Your task to perform on an android device: Open Google Image 0: 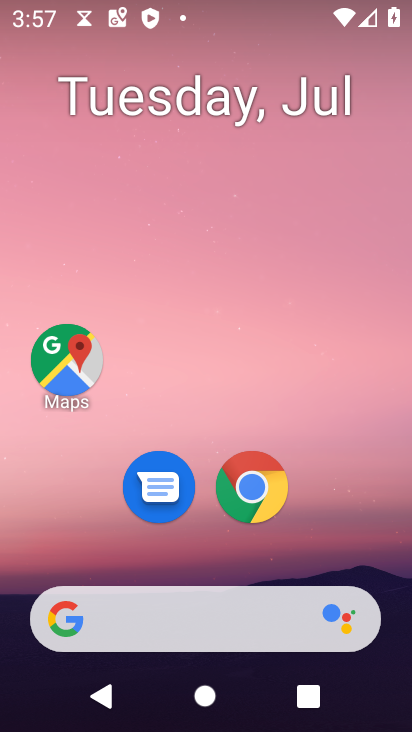
Step 0: drag from (180, 572) to (298, 0)
Your task to perform on an android device: Open Google Image 1: 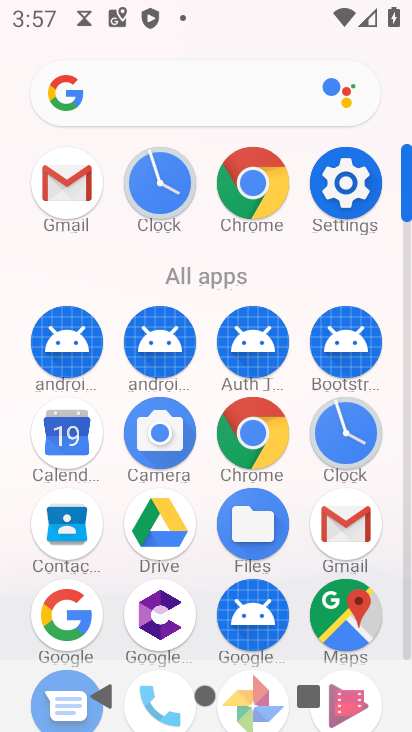
Step 1: click (72, 623)
Your task to perform on an android device: Open Google Image 2: 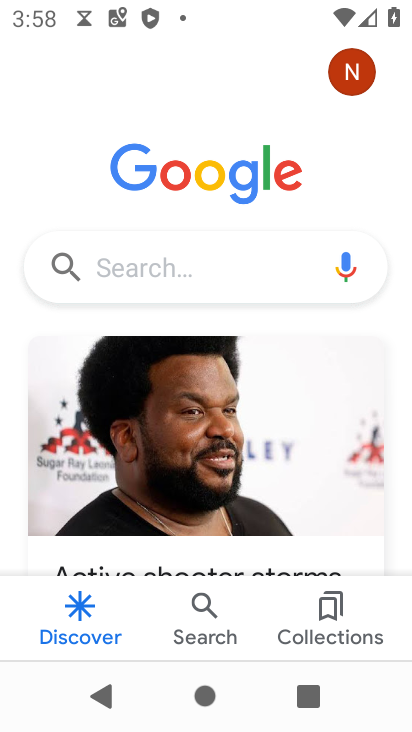
Step 2: task complete